Your task to perform on an android device: open sync settings in chrome Image 0: 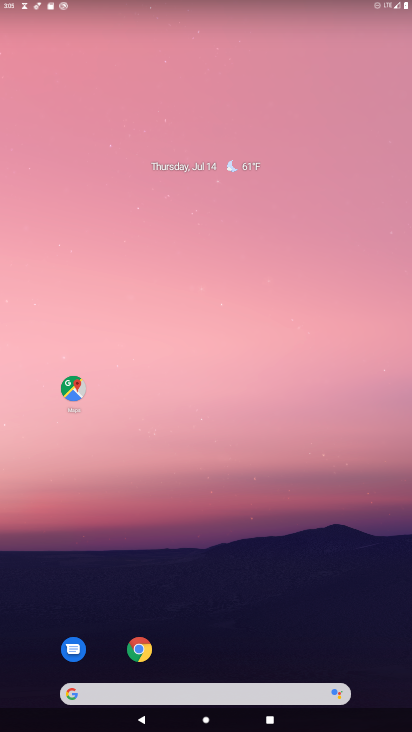
Step 0: drag from (167, 696) to (140, 239)
Your task to perform on an android device: open sync settings in chrome Image 1: 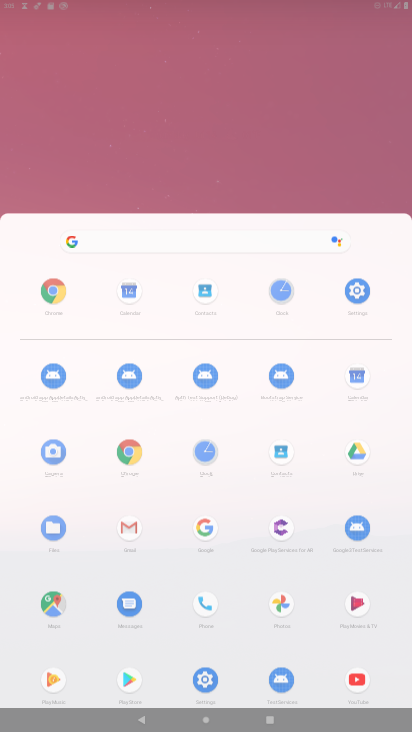
Step 1: click (133, 242)
Your task to perform on an android device: open sync settings in chrome Image 2: 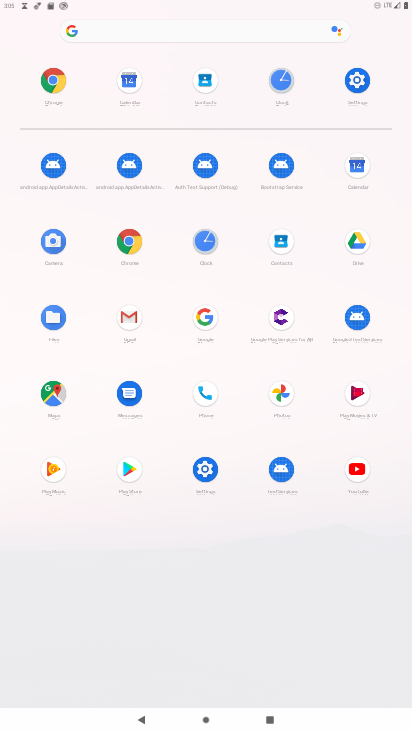
Step 2: click (128, 239)
Your task to perform on an android device: open sync settings in chrome Image 3: 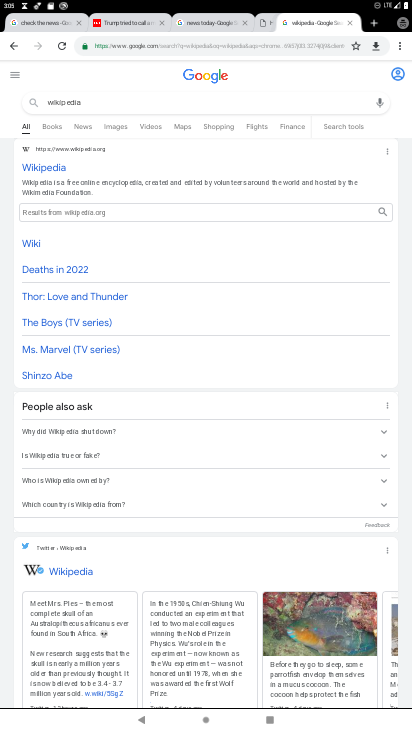
Step 3: drag from (402, 42) to (300, 282)
Your task to perform on an android device: open sync settings in chrome Image 4: 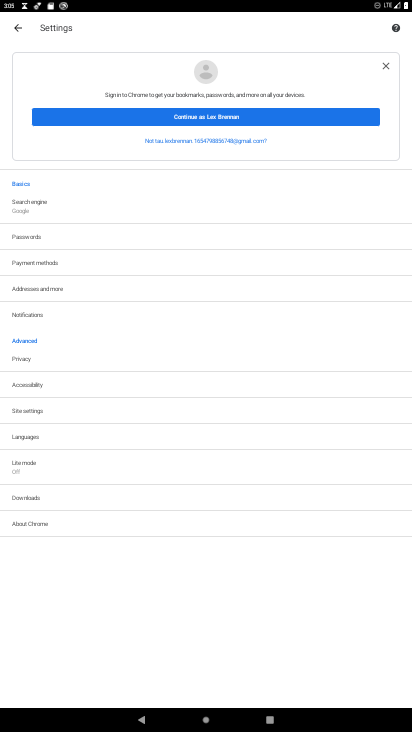
Step 4: click (42, 406)
Your task to perform on an android device: open sync settings in chrome Image 5: 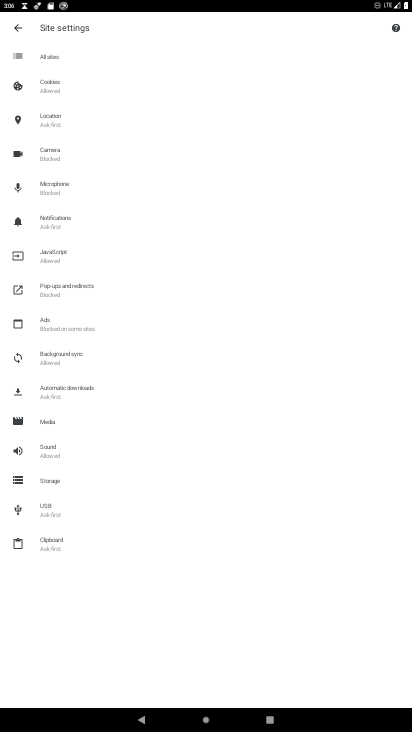
Step 5: click (70, 354)
Your task to perform on an android device: open sync settings in chrome Image 6: 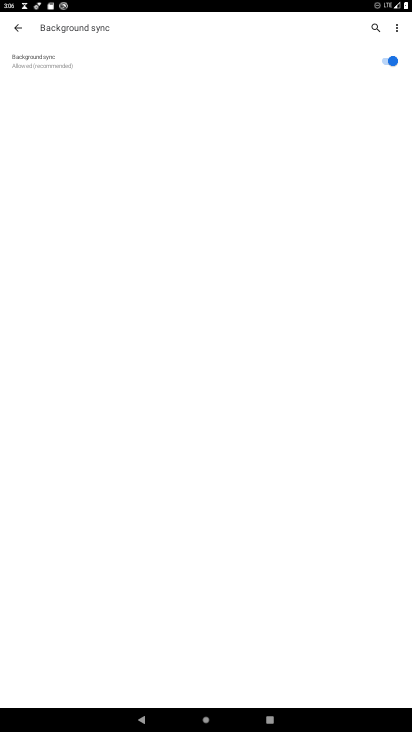
Step 6: task complete